Your task to perform on an android device: Open the Play Movies app and select the watchlist tab. Image 0: 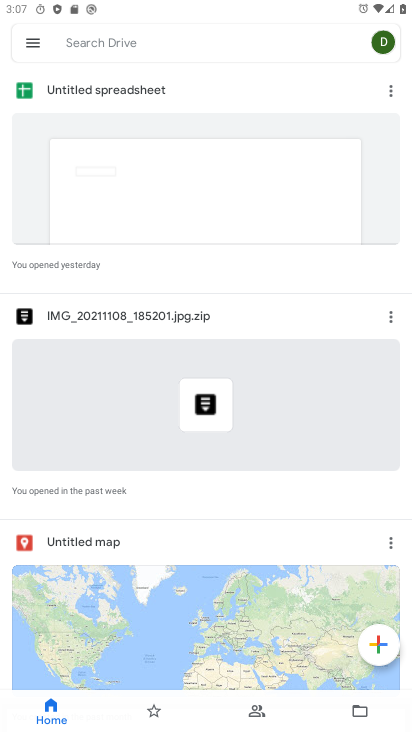
Step 0: press home button
Your task to perform on an android device: Open the Play Movies app and select the watchlist tab. Image 1: 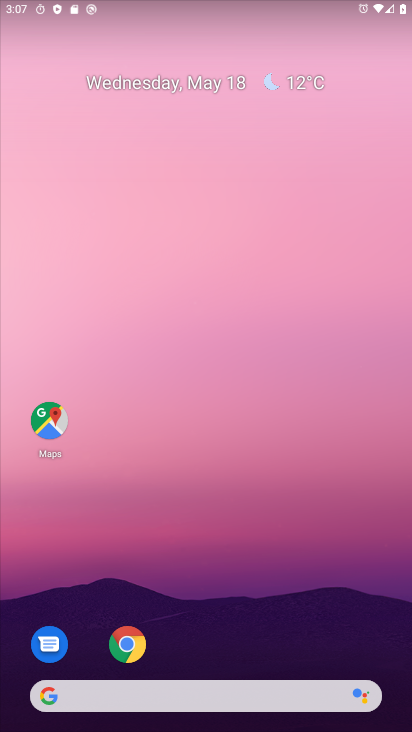
Step 1: drag from (385, 560) to (352, 286)
Your task to perform on an android device: Open the Play Movies app and select the watchlist tab. Image 2: 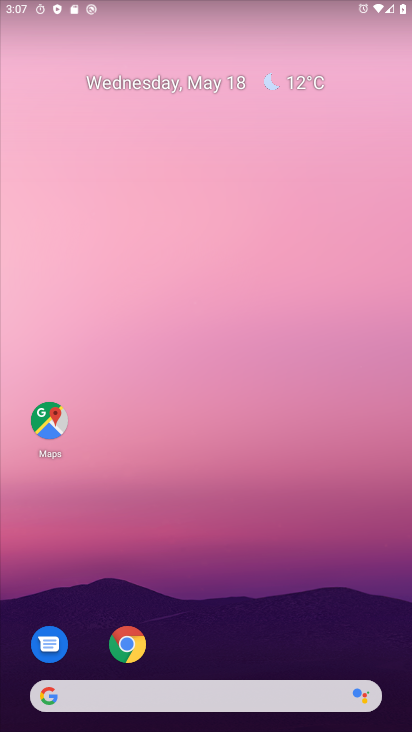
Step 2: drag from (360, 509) to (338, 169)
Your task to perform on an android device: Open the Play Movies app and select the watchlist tab. Image 3: 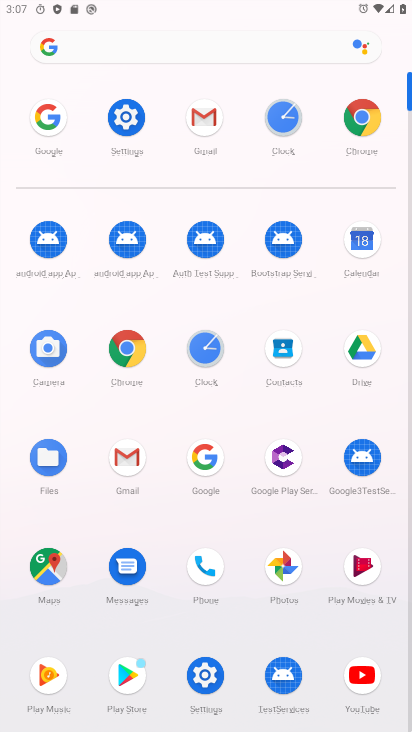
Step 3: click (360, 568)
Your task to perform on an android device: Open the Play Movies app and select the watchlist tab. Image 4: 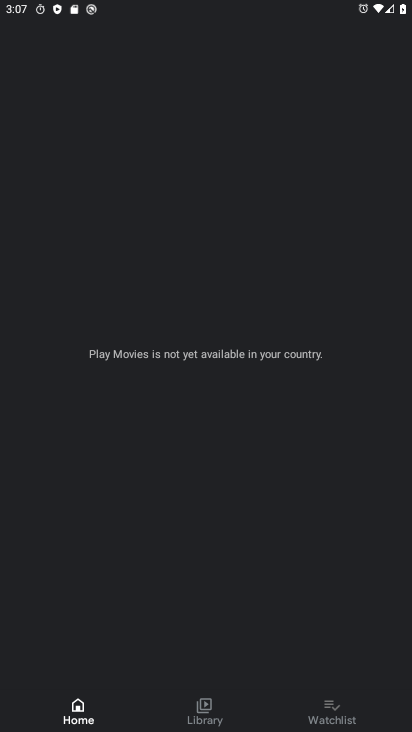
Step 4: task complete